Your task to perform on an android device: Open the calendar app, open the side menu, and click the "Day" option Image 0: 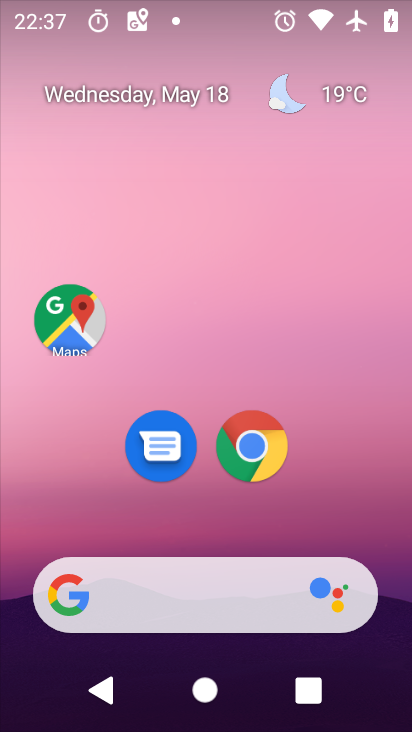
Step 0: press home button
Your task to perform on an android device: Open the calendar app, open the side menu, and click the "Day" option Image 1: 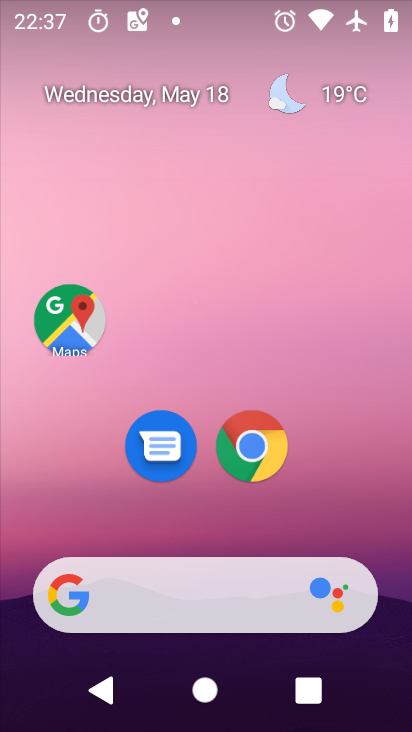
Step 1: drag from (185, 606) to (260, 181)
Your task to perform on an android device: Open the calendar app, open the side menu, and click the "Day" option Image 2: 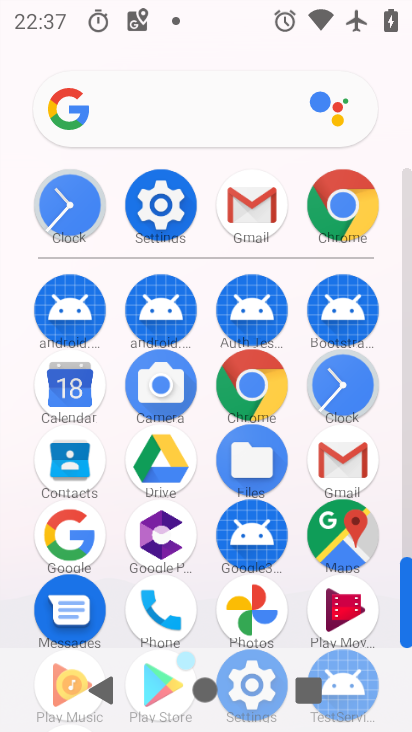
Step 2: click (64, 388)
Your task to perform on an android device: Open the calendar app, open the side menu, and click the "Day" option Image 3: 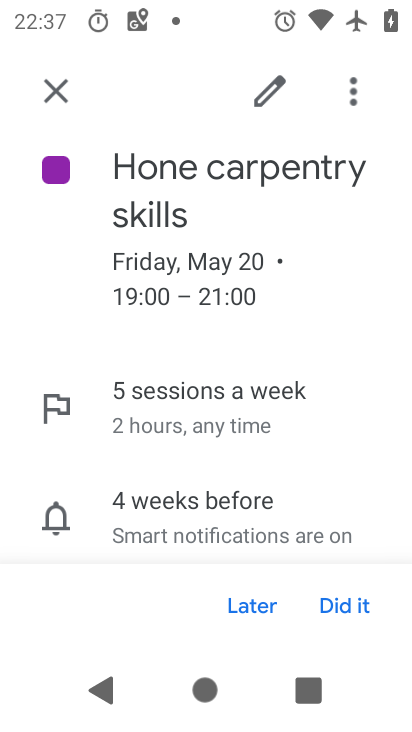
Step 3: click (56, 90)
Your task to perform on an android device: Open the calendar app, open the side menu, and click the "Day" option Image 4: 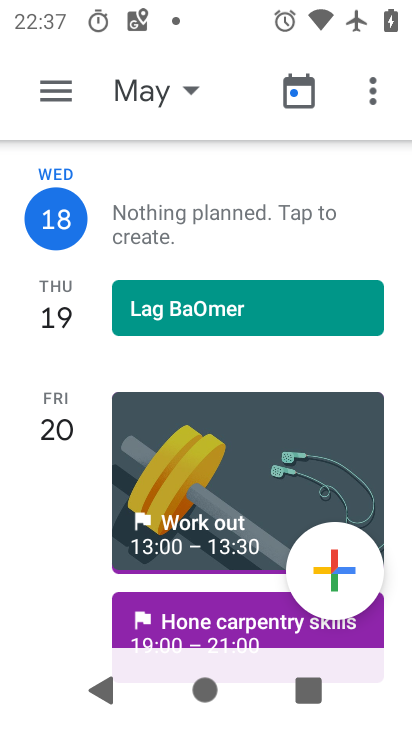
Step 4: click (60, 88)
Your task to perform on an android device: Open the calendar app, open the side menu, and click the "Day" option Image 5: 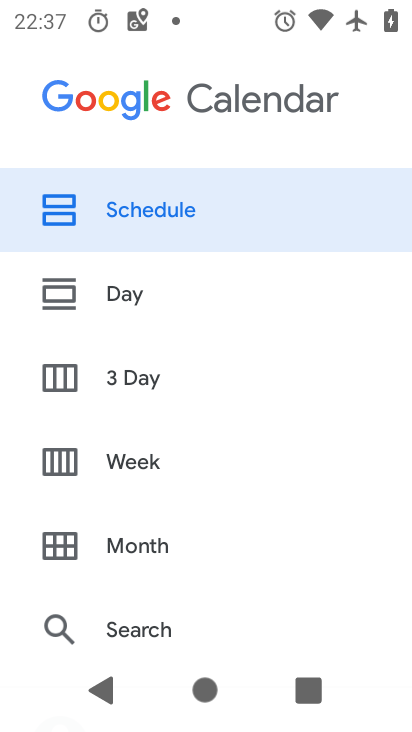
Step 5: click (144, 306)
Your task to perform on an android device: Open the calendar app, open the side menu, and click the "Day" option Image 6: 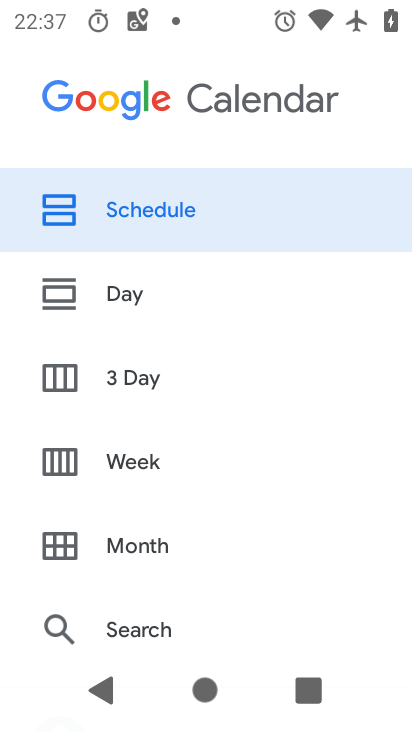
Step 6: click (138, 291)
Your task to perform on an android device: Open the calendar app, open the side menu, and click the "Day" option Image 7: 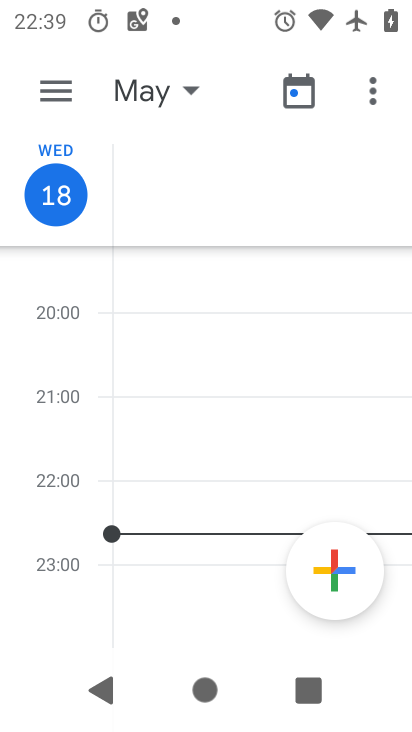
Step 7: task complete